Your task to perform on an android device: Open internet settings Image 0: 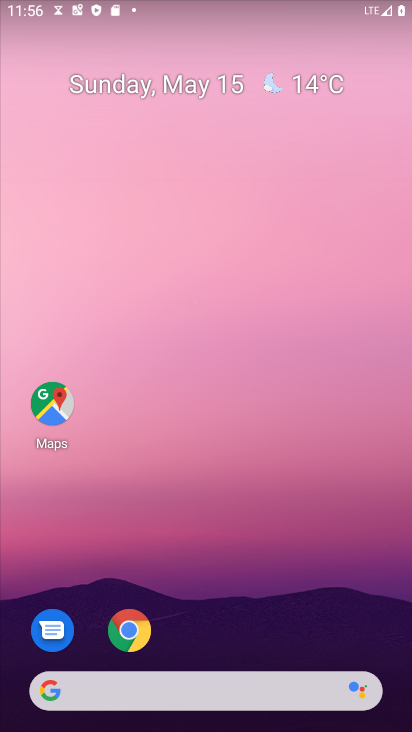
Step 0: drag from (66, 731) to (234, 164)
Your task to perform on an android device: Open internet settings Image 1: 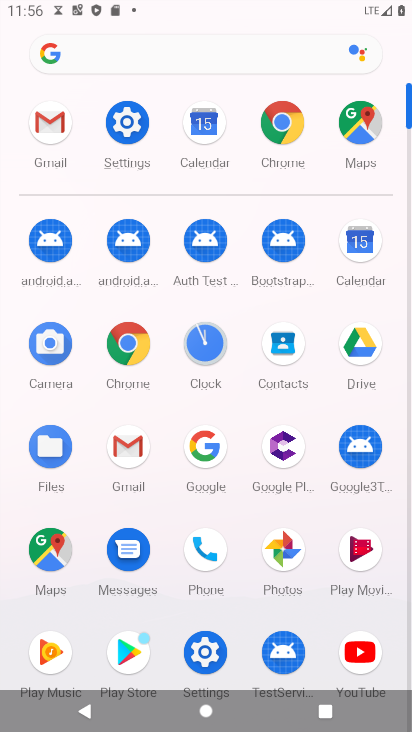
Step 1: click (126, 128)
Your task to perform on an android device: Open internet settings Image 2: 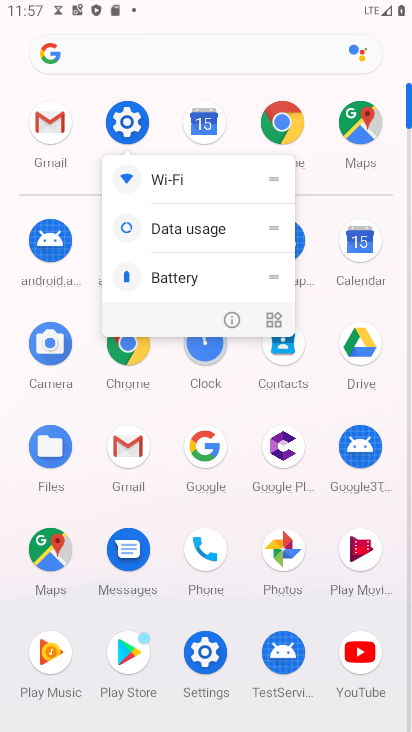
Step 2: click (138, 127)
Your task to perform on an android device: Open internet settings Image 3: 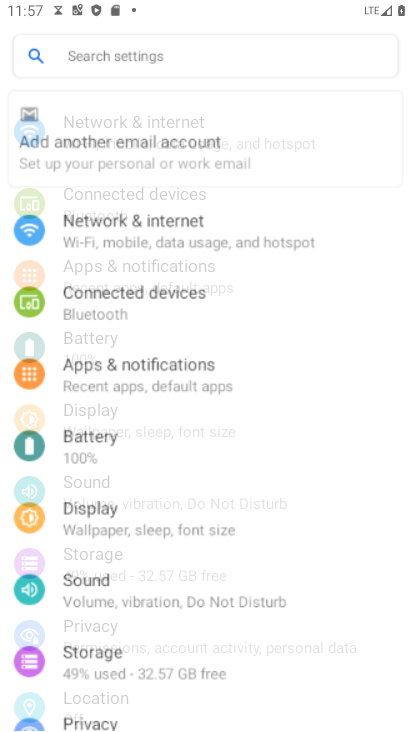
Step 3: click (131, 116)
Your task to perform on an android device: Open internet settings Image 4: 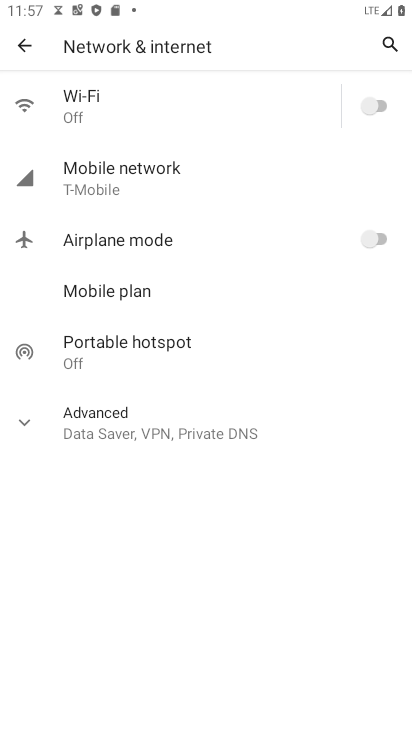
Step 4: click (113, 171)
Your task to perform on an android device: Open internet settings Image 5: 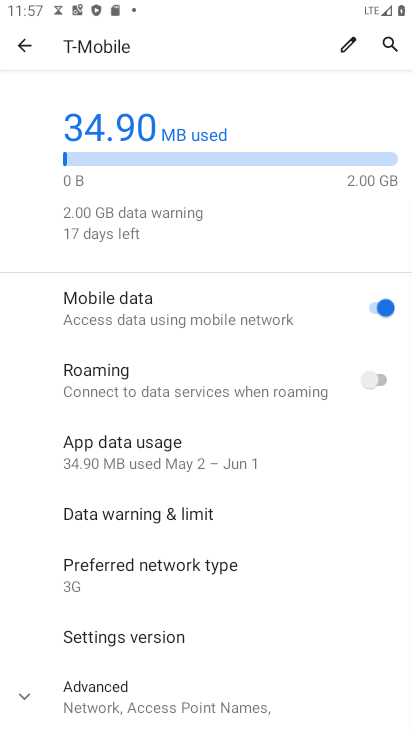
Step 5: task complete